Your task to perform on an android device: turn off data saver in the chrome app Image 0: 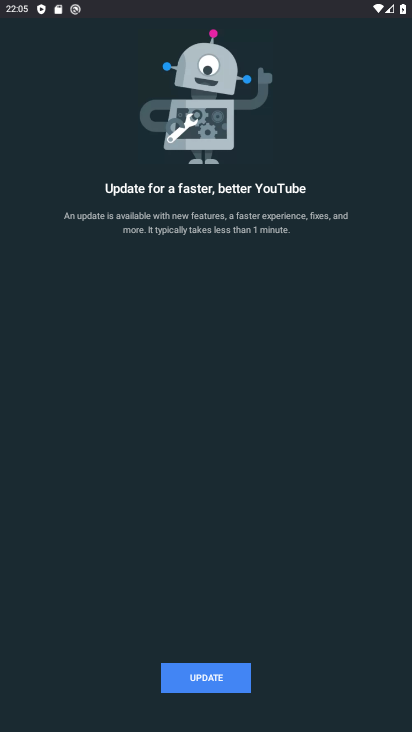
Step 0: press home button
Your task to perform on an android device: turn off data saver in the chrome app Image 1: 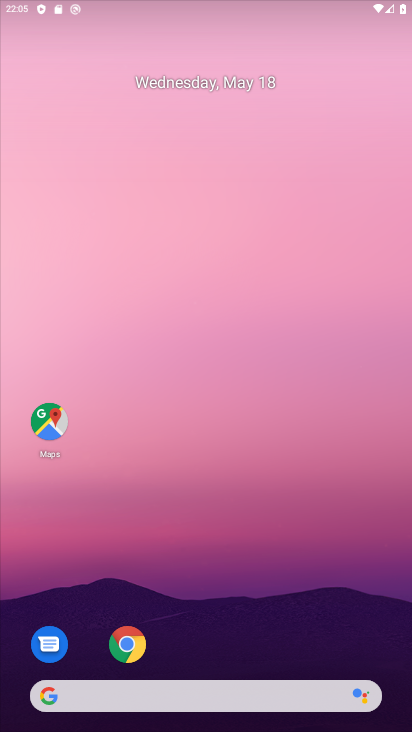
Step 1: click (293, 548)
Your task to perform on an android device: turn off data saver in the chrome app Image 2: 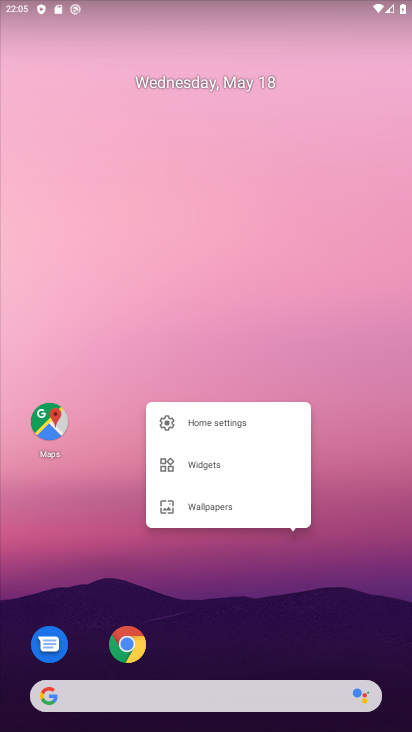
Step 2: click (124, 639)
Your task to perform on an android device: turn off data saver in the chrome app Image 3: 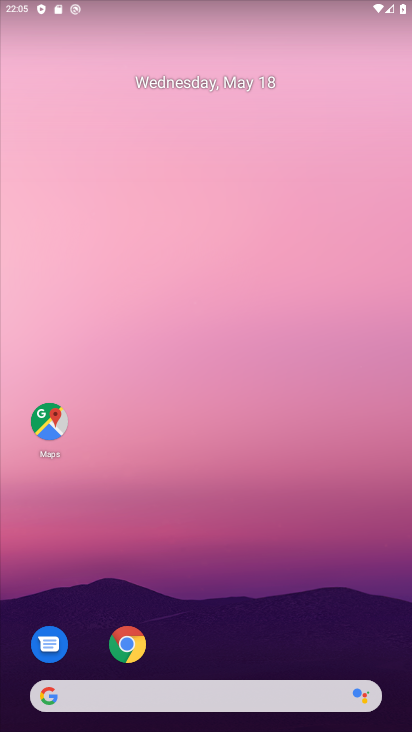
Step 3: click (129, 638)
Your task to perform on an android device: turn off data saver in the chrome app Image 4: 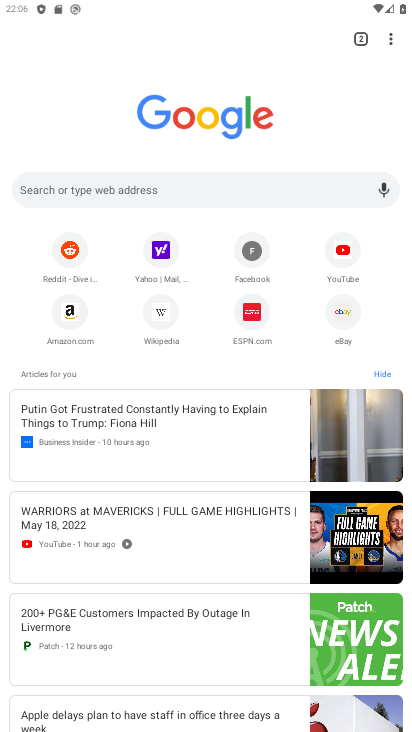
Step 4: click (395, 34)
Your task to perform on an android device: turn off data saver in the chrome app Image 5: 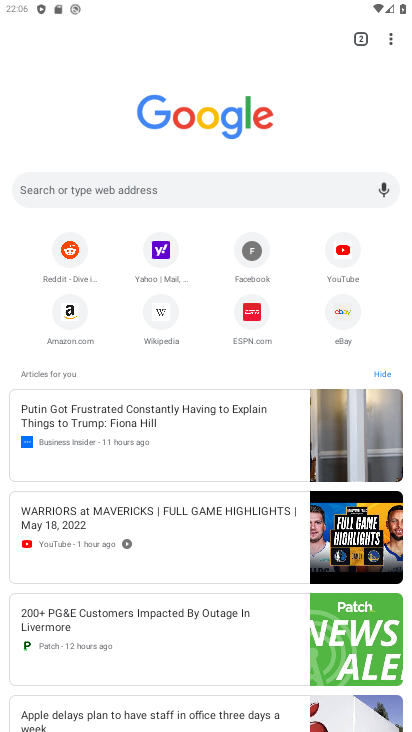
Step 5: drag from (400, 31) to (287, 329)
Your task to perform on an android device: turn off data saver in the chrome app Image 6: 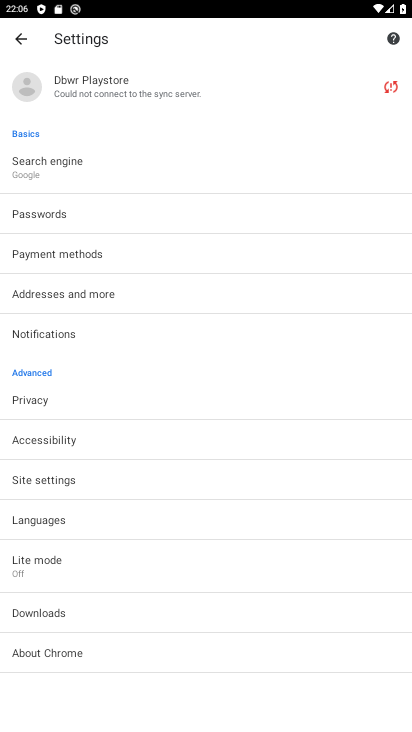
Step 6: drag from (177, 524) to (198, 59)
Your task to perform on an android device: turn off data saver in the chrome app Image 7: 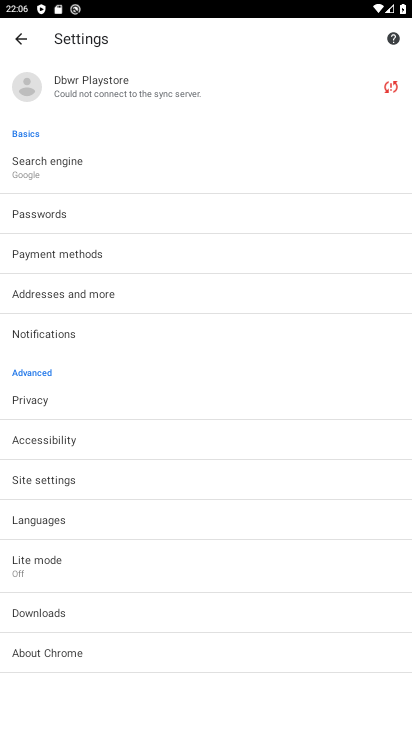
Step 7: click (53, 549)
Your task to perform on an android device: turn off data saver in the chrome app Image 8: 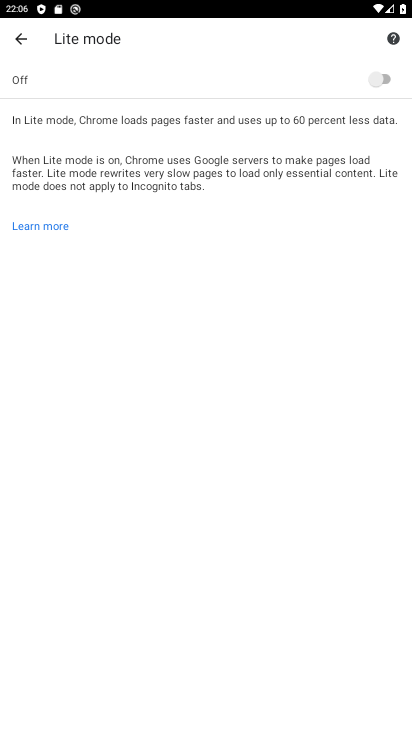
Step 8: task complete